Your task to perform on an android device: Do I have any events this weekend? Image 0: 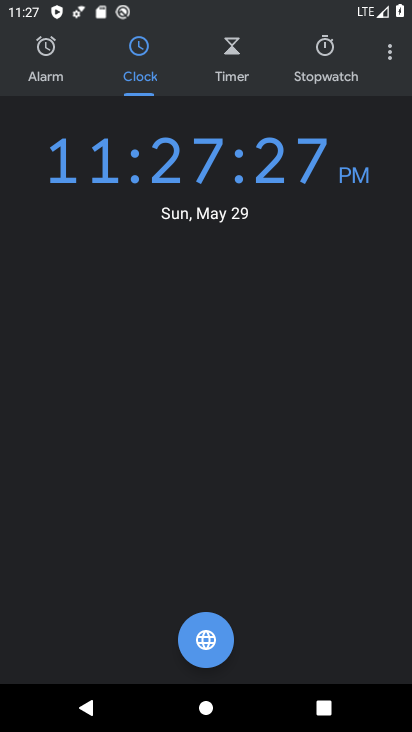
Step 0: press home button
Your task to perform on an android device: Do I have any events this weekend? Image 1: 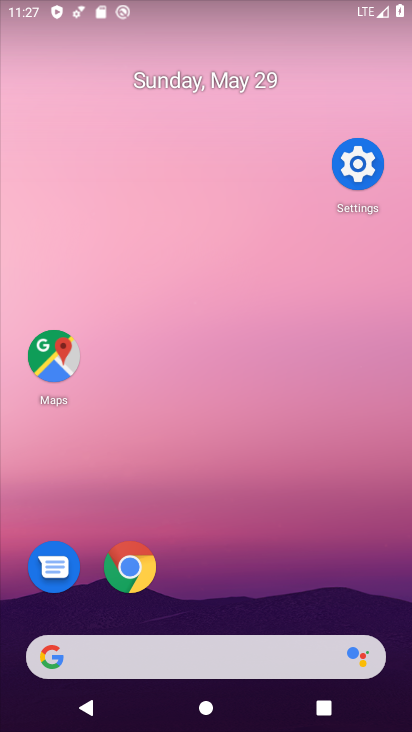
Step 1: drag from (332, 524) to (262, 170)
Your task to perform on an android device: Do I have any events this weekend? Image 2: 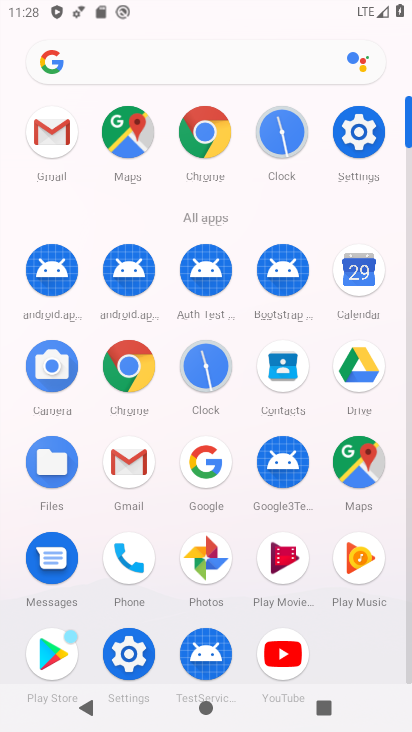
Step 2: click (363, 266)
Your task to perform on an android device: Do I have any events this weekend? Image 3: 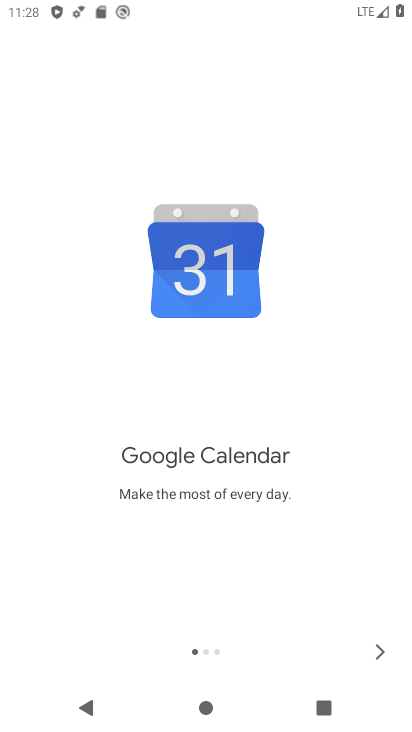
Step 3: click (374, 650)
Your task to perform on an android device: Do I have any events this weekend? Image 4: 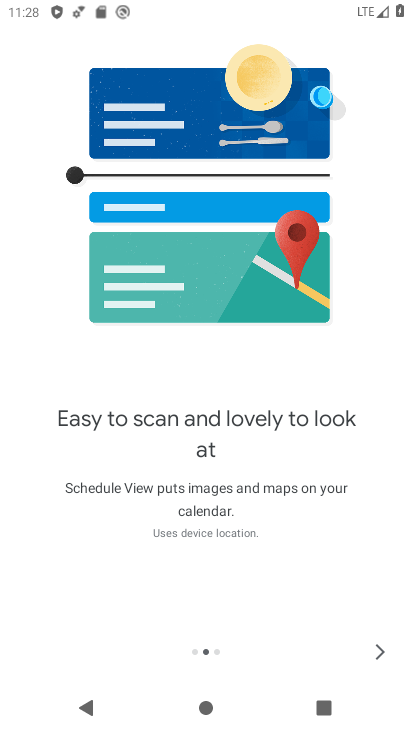
Step 4: click (374, 650)
Your task to perform on an android device: Do I have any events this weekend? Image 5: 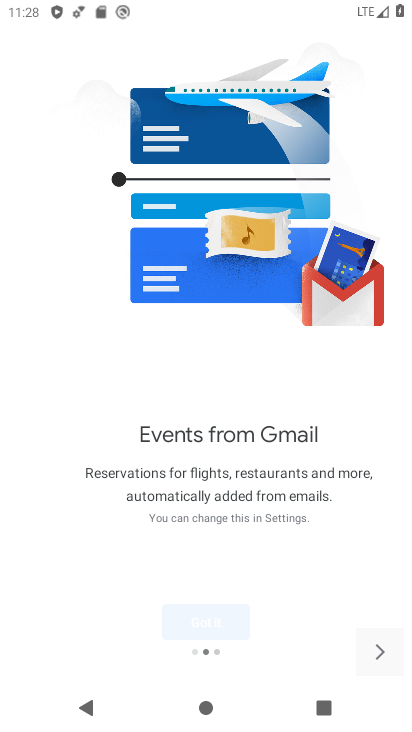
Step 5: click (374, 650)
Your task to perform on an android device: Do I have any events this weekend? Image 6: 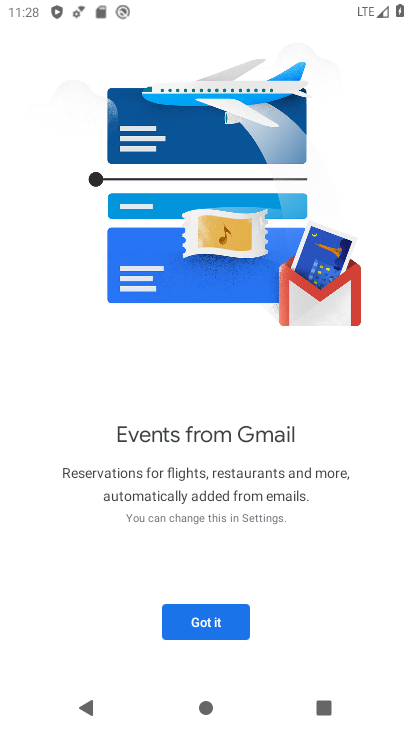
Step 6: click (199, 614)
Your task to perform on an android device: Do I have any events this weekend? Image 7: 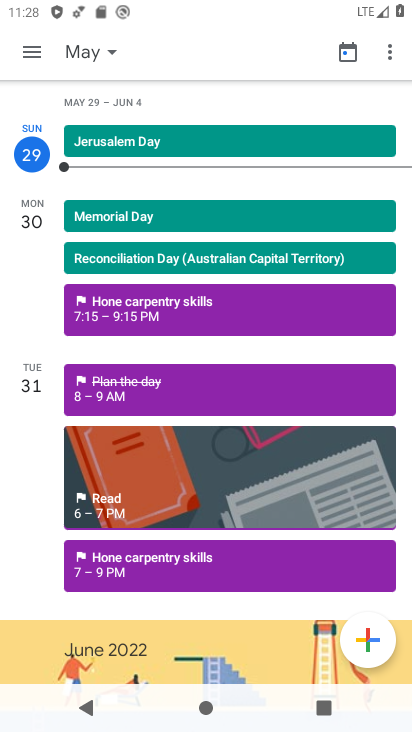
Step 7: task complete